Your task to perform on an android device: open wifi settings Image 0: 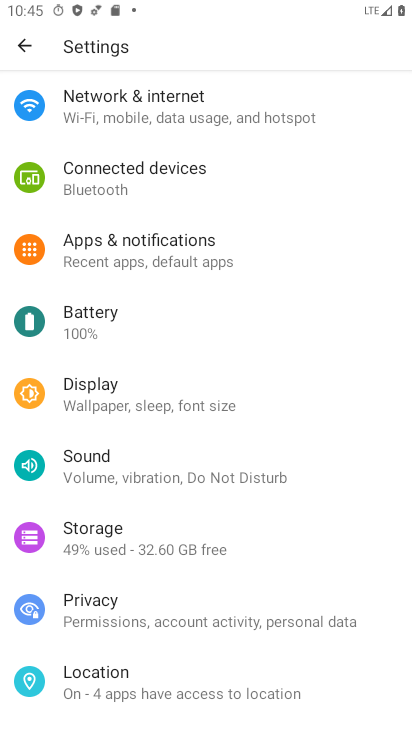
Step 0: drag from (168, 10) to (172, 641)
Your task to perform on an android device: open wifi settings Image 1: 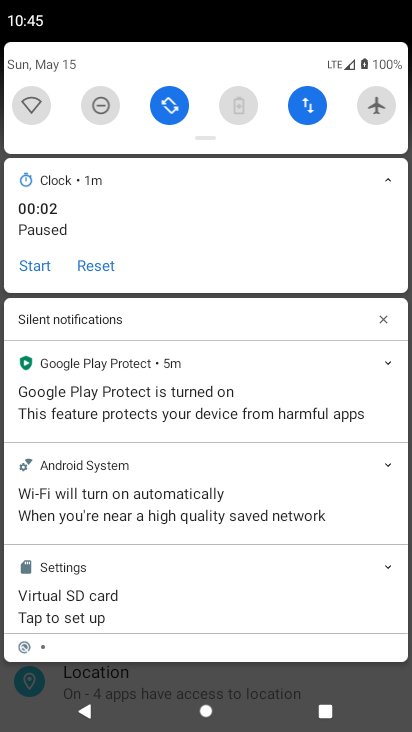
Step 1: click (31, 108)
Your task to perform on an android device: open wifi settings Image 2: 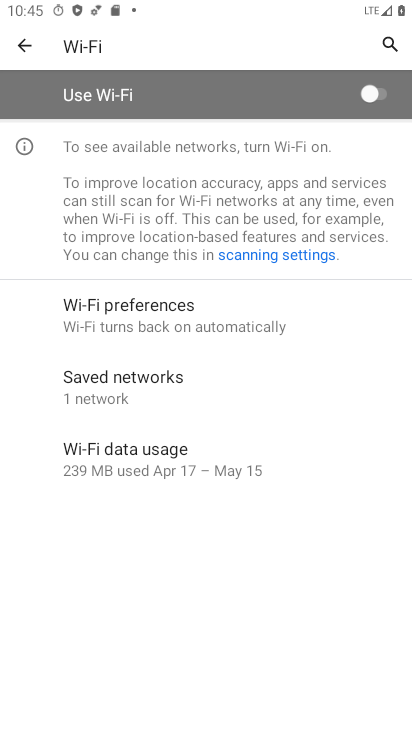
Step 2: task complete